Your task to perform on an android device: change notification settings in the gmail app Image 0: 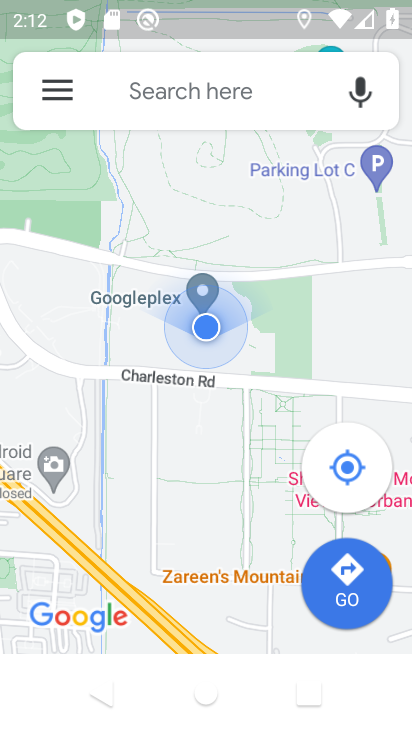
Step 0: drag from (261, 655) to (277, 528)
Your task to perform on an android device: change notification settings in the gmail app Image 1: 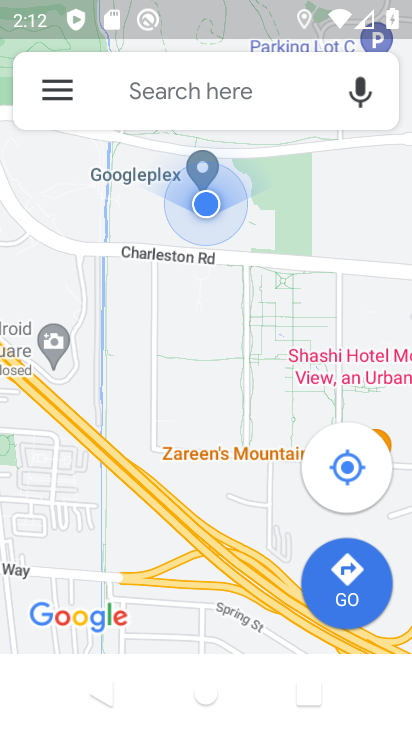
Step 1: press home button
Your task to perform on an android device: change notification settings in the gmail app Image 2: 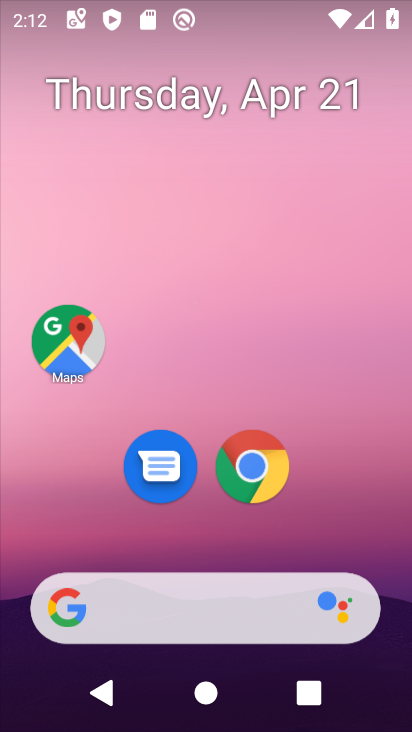
Step 2: drag from (383, 660) to (278, 75)
Your task to perform on an android device: change notification settings in the gmail app Image 3: 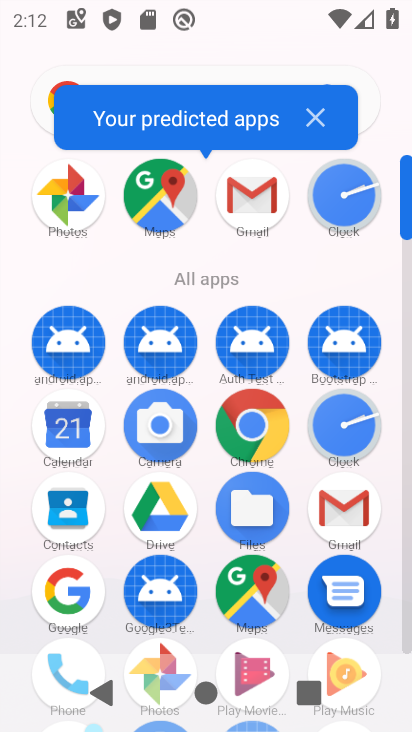
Step 3: click (339, 496)
Your task to perform on an android device: change notification settings in the gmail app Image 4: 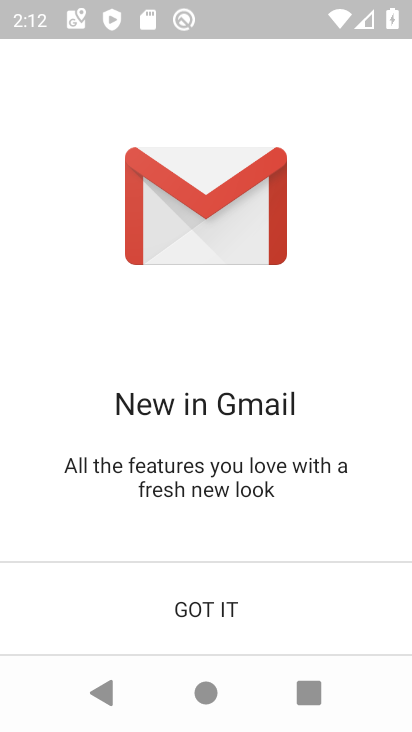
Step 4: click (215, 615)
Your task to perform on an android device: change notification settings in the gmail app Image 5: 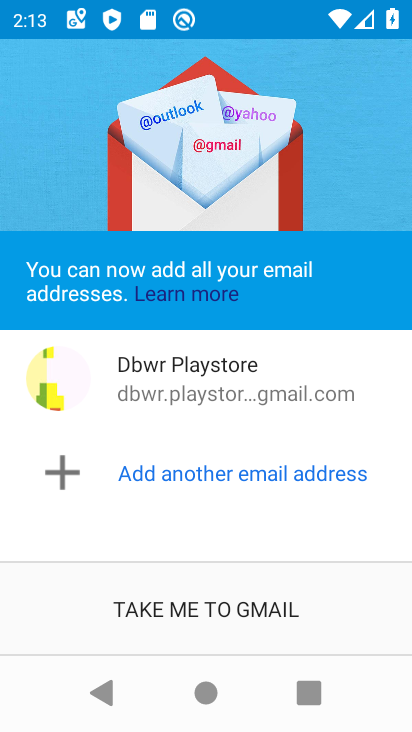
Step 5: click (215, 615)
Your task to perform on an android device: change notification settings in the gmail app Image 6: 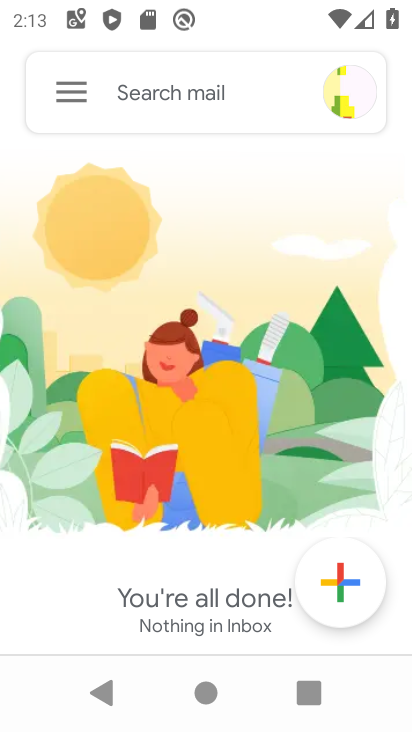
Step 6: click (66, 92)
Your task to perform on an android device: change notification settings in the gmail app Image 7: 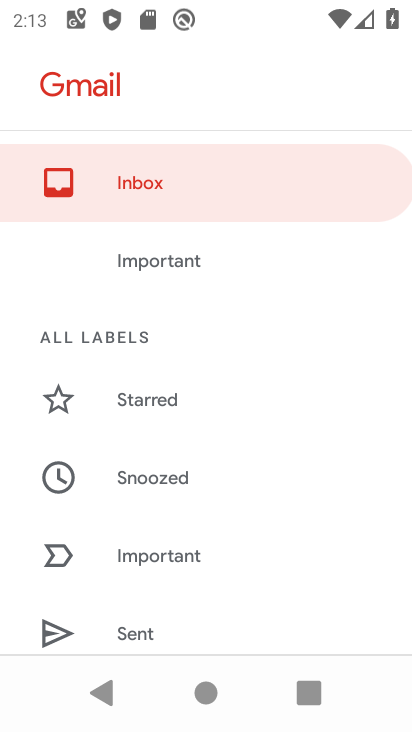
Step 7: drag from (235, 573) to (196, 91)
Your task to perform on an android device: change notification settings in the gmail app Image 8: 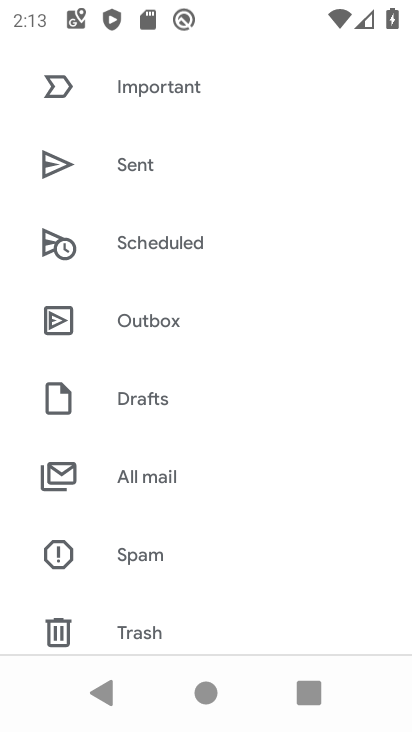
Step 8: drag from (235, 633) to (265, 91)
Your task to perform on an android device: change notification settings in the gmail app Image 9: 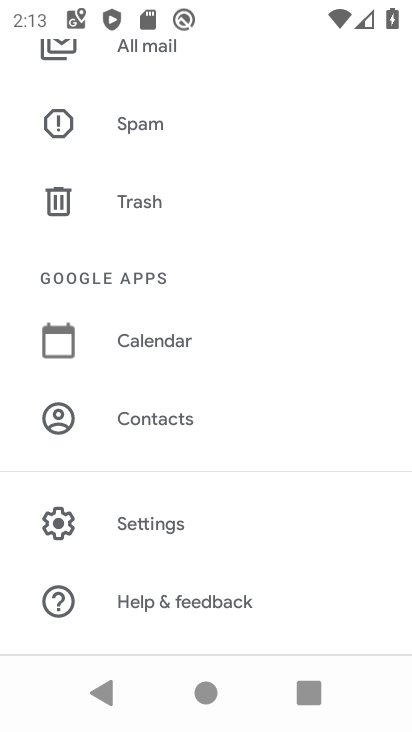
Step 9: click (195, 528)
Your task to perform on an android device: change notification settings in the gmail app Image 10: 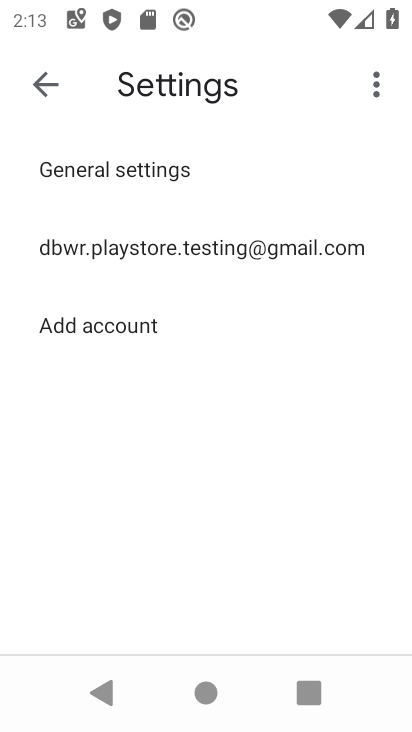
Step 10: click (203, 244)
Your task to perform on an android device: change notification settings in the gmail app Image 11: 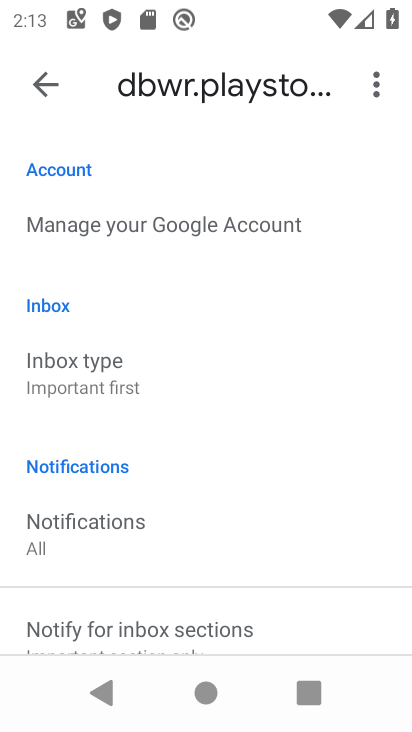
Step 11: drag from (155, 628) to (194, 201)
Your task to perform on an android device: change notification settings in the gmail app Image 12: 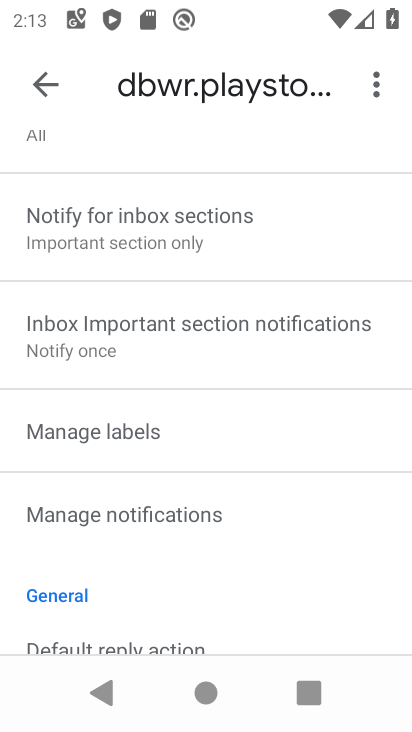
Step 12: click (182, 510)
Your task to perform on an android device: change notification settings in the gmail app Image 13: 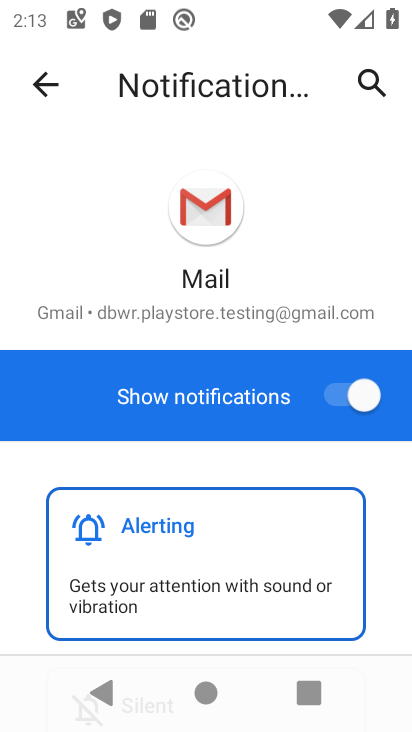
Step 13: click (344, 393)
Your task to perform on an android device: change notification settings in the gmail app Image 14: 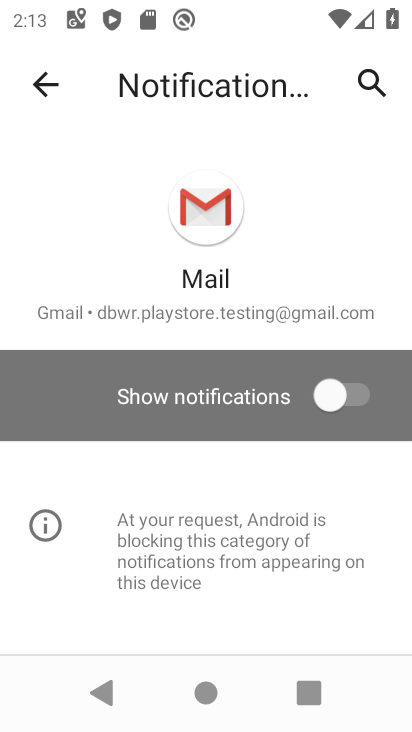
Step 14: task complete